Your task to perform on an android device: Do I have any events this weekend? Image 0: 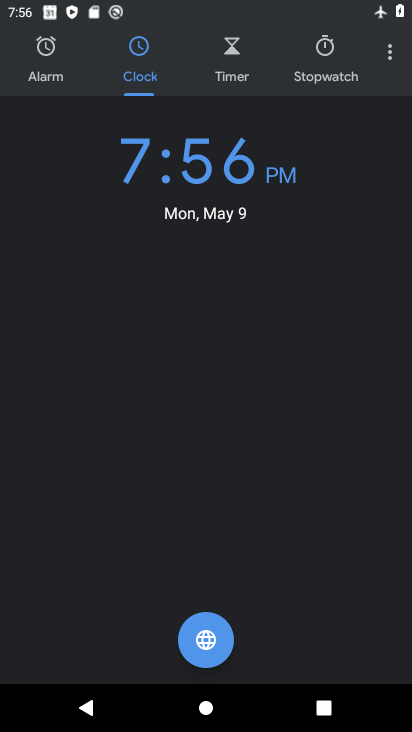
Step 0: press home button
Your task to perform on an android device: Do I have any events this weekend? Image 1: 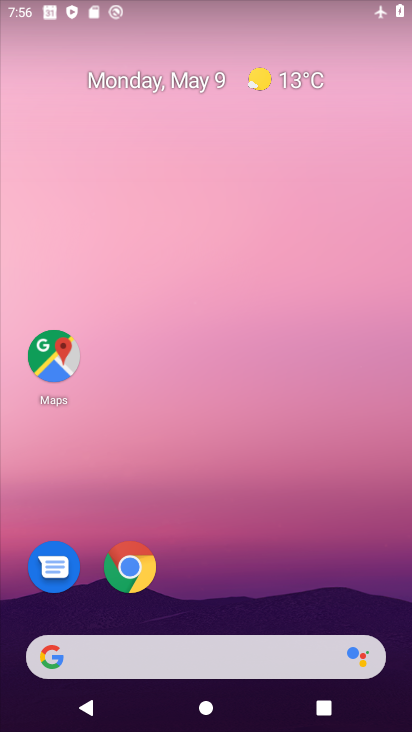
Step 1: drag from (250, 558) to (244, 52)
Your task to perform on an android device: Do I have any events this weekend? Image 2: 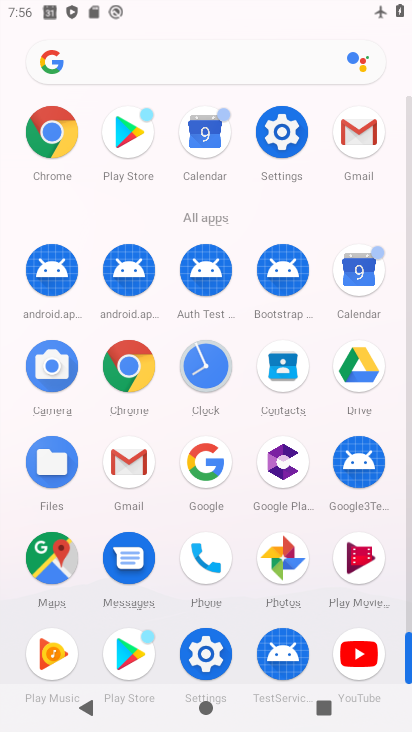
Step 2: click (196, 142)
Your task to perform on an android device: Do I have any events this weekend? Image 3: 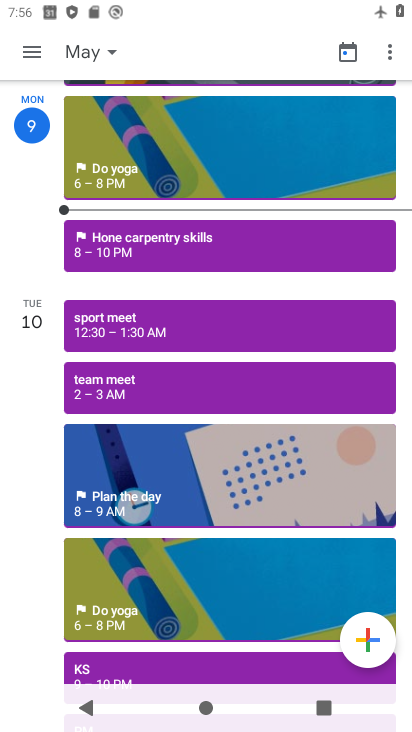
Step 3: task complete